Your task to perform on an android device: turn pop-ups off in chrome Image 0: 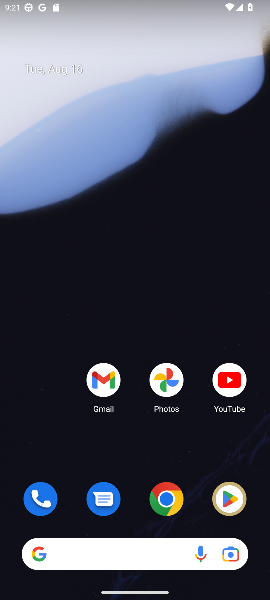
Step 0: press home button
Your task to perform on an android device: turn pop-ups off in chrome Image 1: 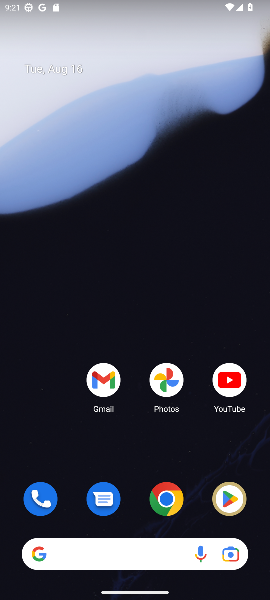
Step 1: drag from (138, 489) to (194, 138)
Your task to perform on an android device: turn pop-ups off in chrome Image 2: 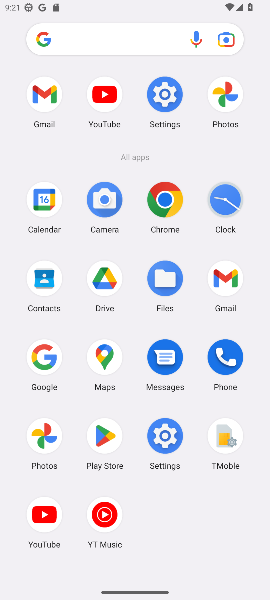
Step 2: click (162, 210)
Your task to perform on an android device: turn pop-ups off in chrome Image 3: 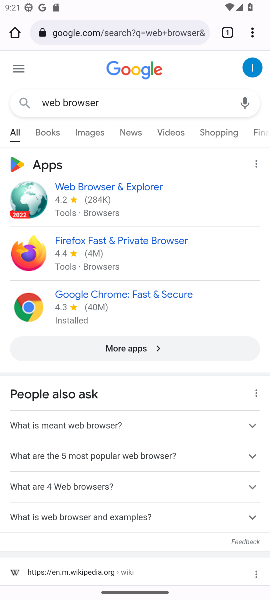
Step 3: drag from (252, 31) to (141, 419)
Your task to perform on an android device: turn pop-ups off in chrome Image 4: 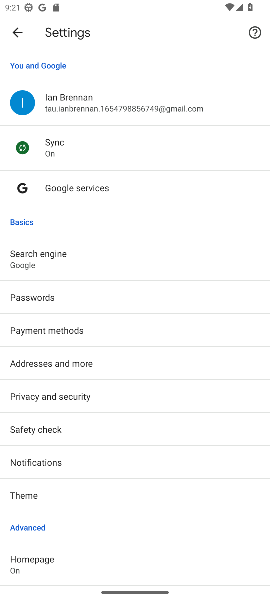
Step 4: drag from (117, 431) to (117, 387)
Your task to perform on an android device: turn pop-ups off in chrome Image 5: 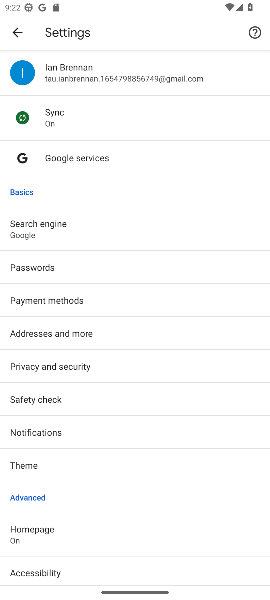
Step 5: drag from (79, 468) to (76, 288)
Your task to perform on an android device: turn pop-ups off in chrome Image 6: 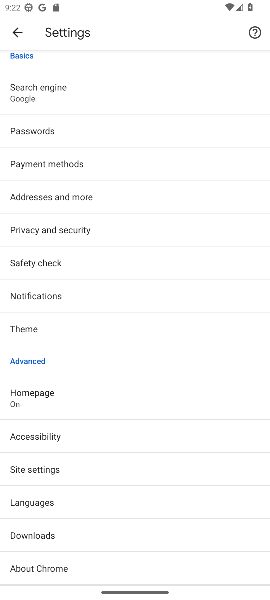
Step 6: click (49, 479)
Your task to perform on an android device: turn pop-ups off in chrome Image 7: 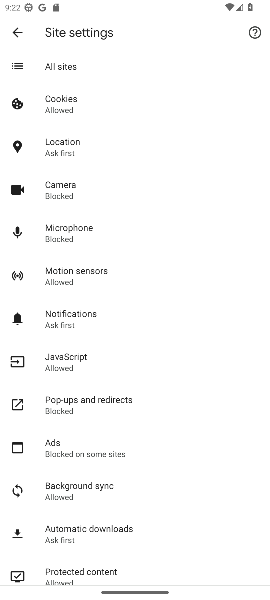
Step 7: click (57, 413)
Your task to perform on an android device: turn pop-ups off in chrome Image 8: 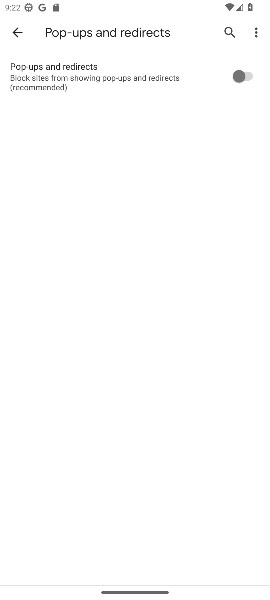
Step 8: task complete